Your task to perform on an android device: Open Chrome and go to the settings page Image 0: 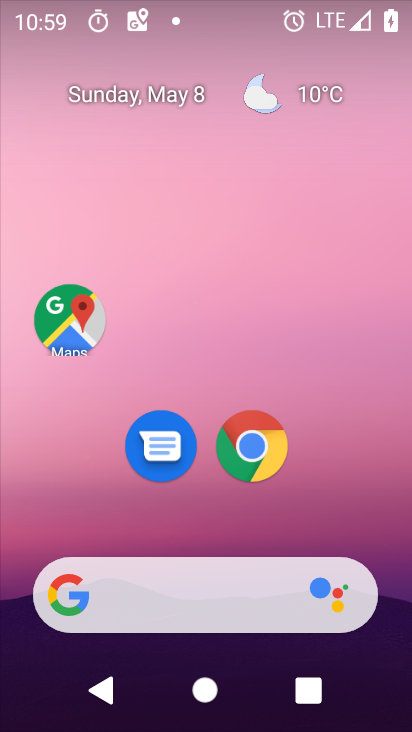
Step 0: click (255, 459)
Your task to perform on an android device: Open Chrome and go to the settings page Image 1: 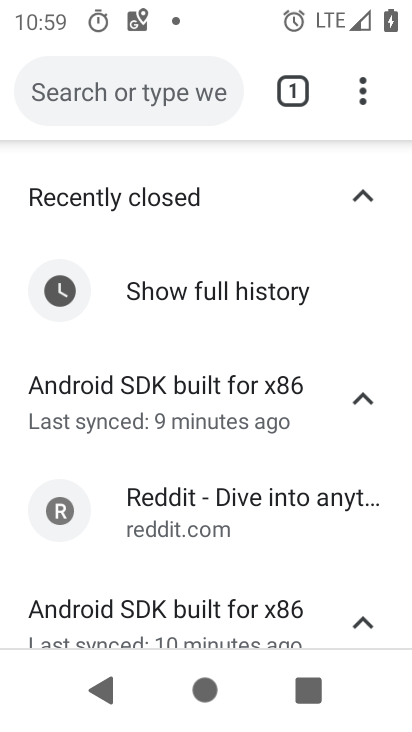
Step 1: task complete